Your task to perform on an android device: Go to Yahoo.com Image 0: 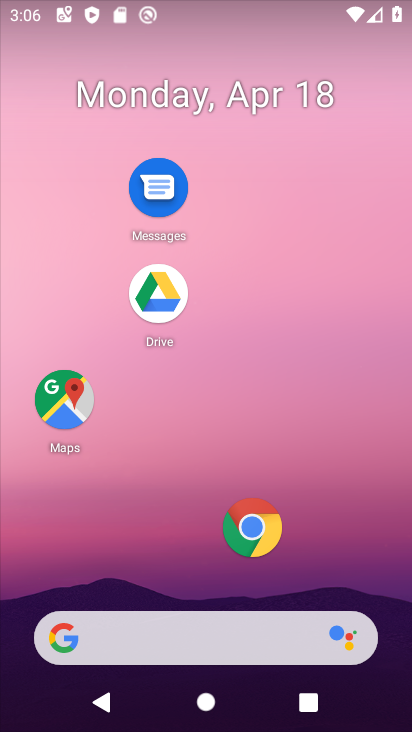
Step 0: click (255, 531)
Your task to perform on an android device: Go to Yahoo.com Image 1: 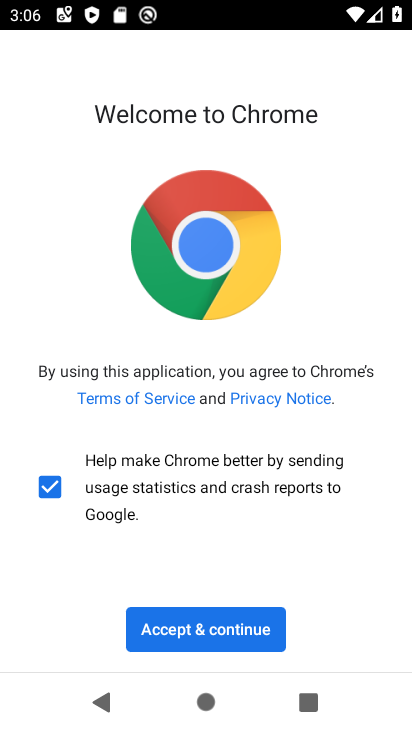
Step 1: click (202, 626)
Your task to perform on an android device: Go to Yahoo.com Image 2: 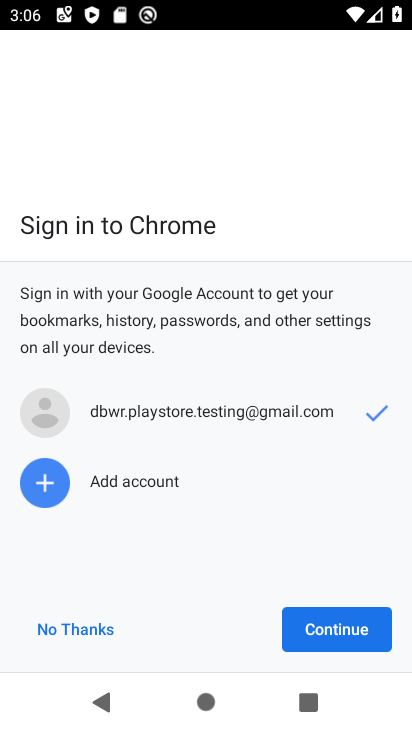
Step 2: click (303, 620)
Your task to perform on an android device: Go to Yahoo.com Image 3: 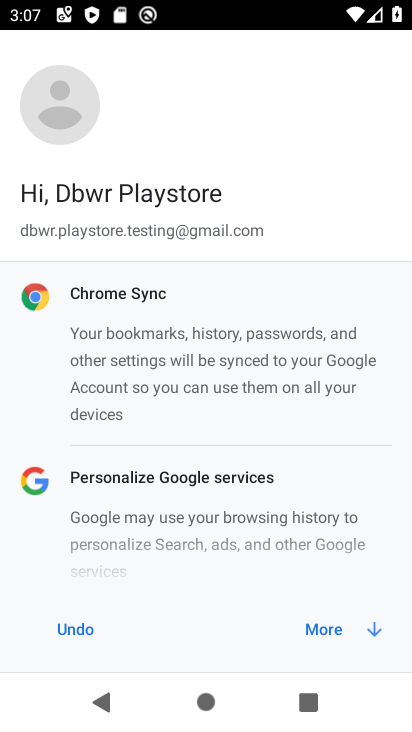
Step 3: click (326, 620)
Your task to perform on an android device: Go to Yahoo.com Image 4: 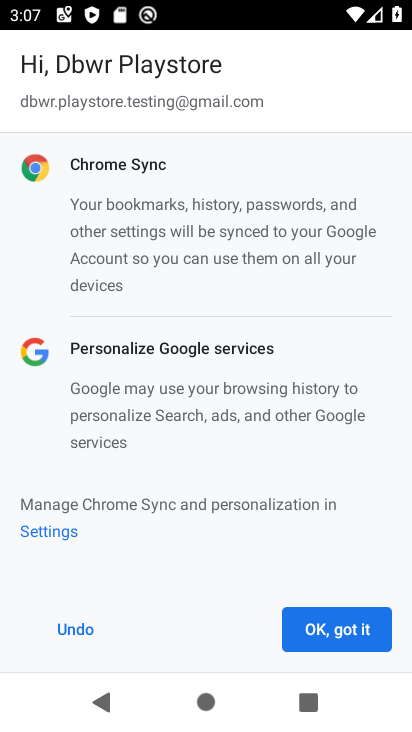
Step 4: click (334, 623)
Your task to perform on an android device: Go to Yahoo.com Image 5: 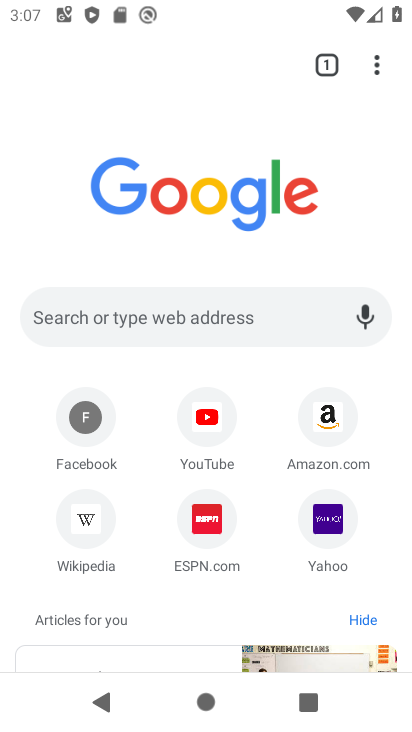
Step 5: click (162, 310)
Your task to perform on an android device: Go to Yahoo.com Image 6: 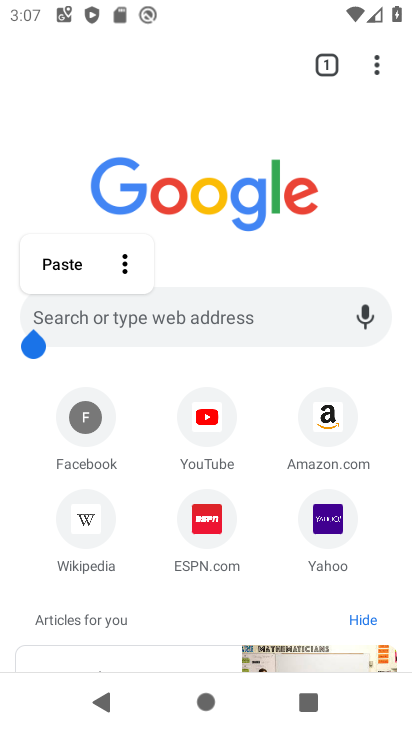
Step 6: click (185, 328)
Your task to perform on an android device: Go to Yahoo.com Image 7: 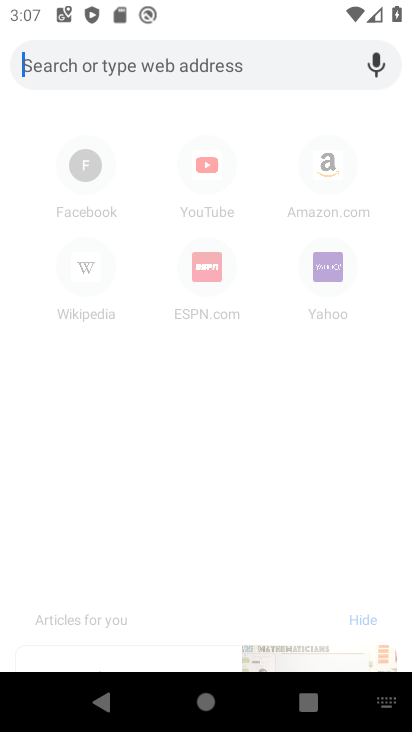
Step 7: click (131, 74)
Your task to perform on an android device: Go to Yahoo.com Image 8: 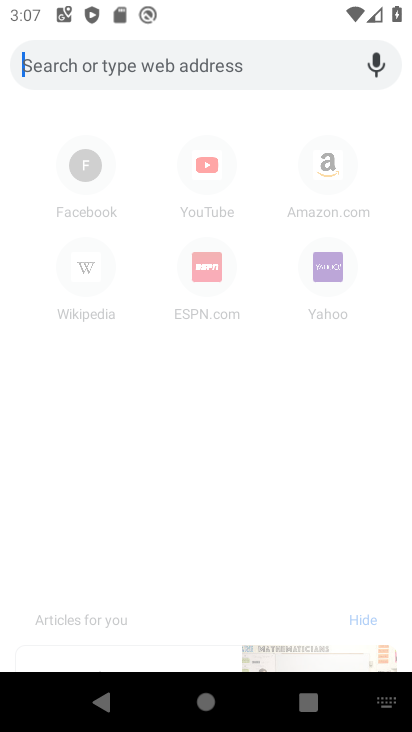
Step 8: type "Yahoo.com"
Your task to perform on an android device: Go to Yahoo.com Image 9: 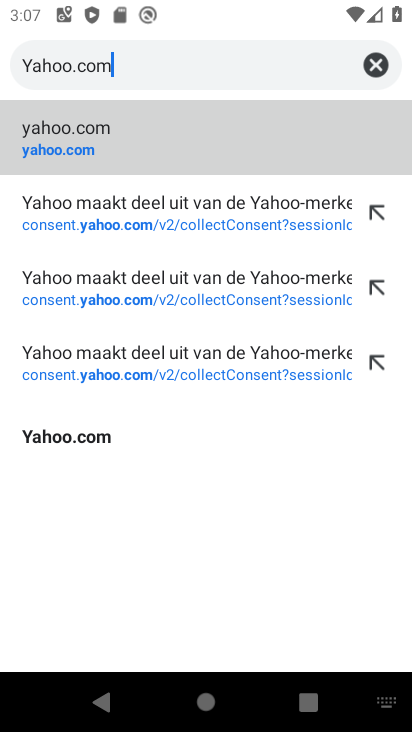
Step 9: click (156, 150)
Your task to perform on an android device: Go to Yahoo.com Image 10: 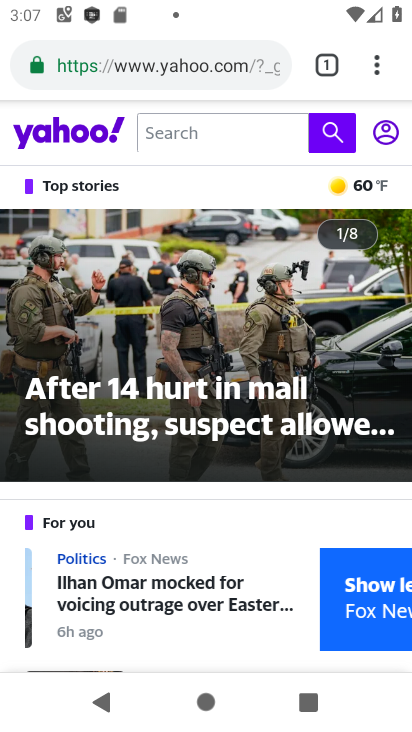
Step 10: task complete